Your task to perform on an android device: Open notification settings Image 0: 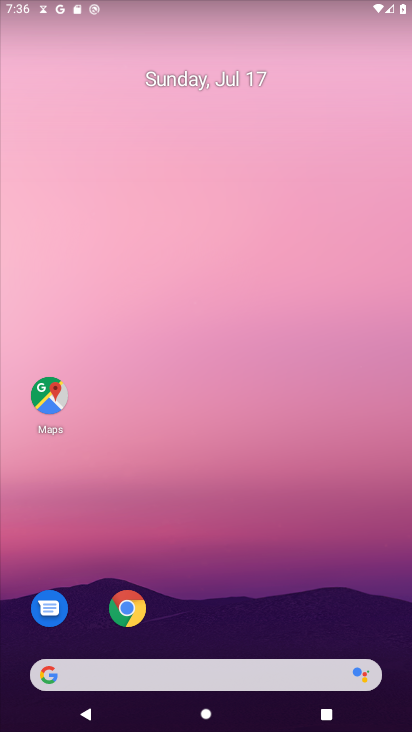
Step 0: drag from (161, 634) to (245, 285)
Your task to perform on an android device: Open notification settings Image 1: 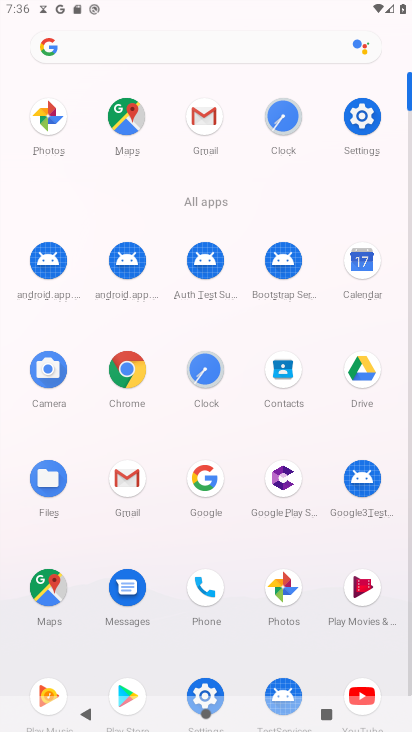
Step 1: click (356, 122)
Your task to perform on an android device: Open notification settings Image 2: 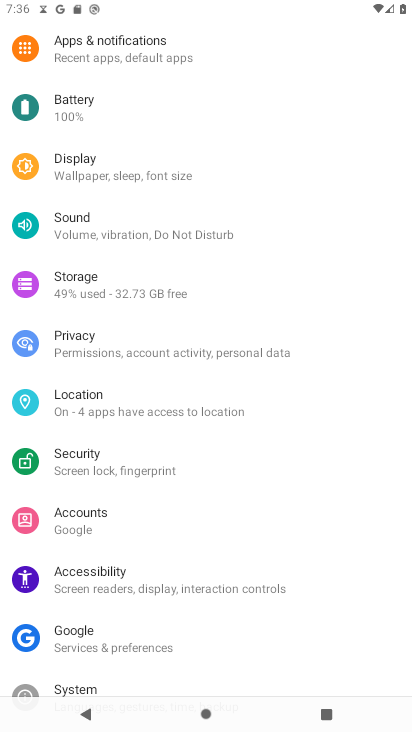
Step 2: click (150, 46)
Your task to perform on an android device: Open notification settings Image 3: 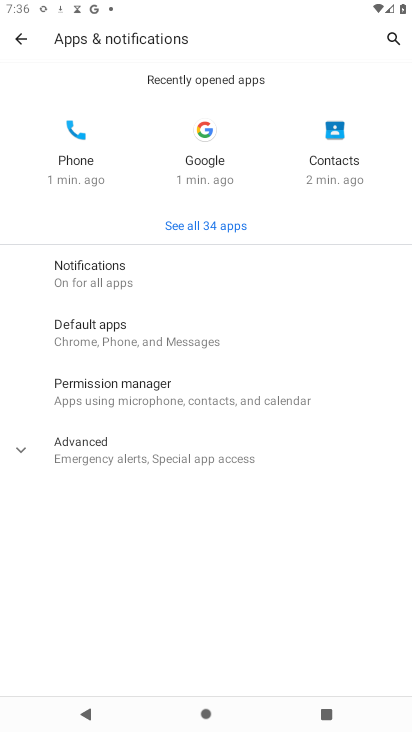
Step 3: click (112, 445)
Your task to perform on an android device: Open notification settings Image 4: 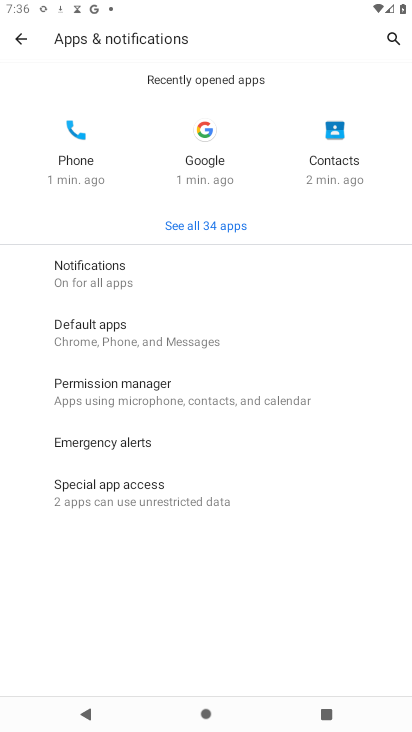
Step 4: task complete